Your task to perform on an android device: check google app version Image 0: 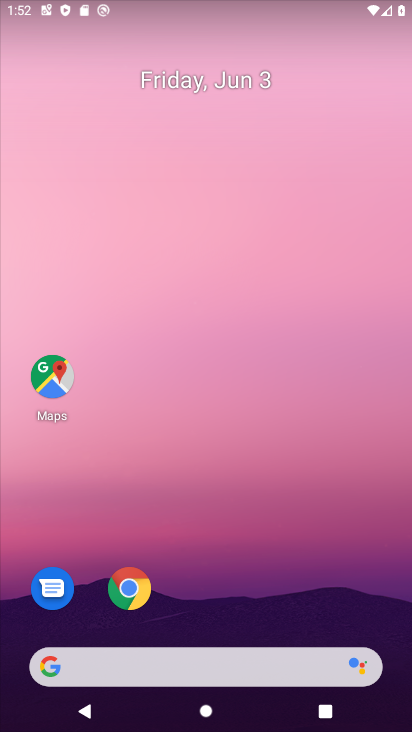
Step 0: drag from (264, 544) to (235, 19)
Your task to perform on an android device: check google app version Image 1: 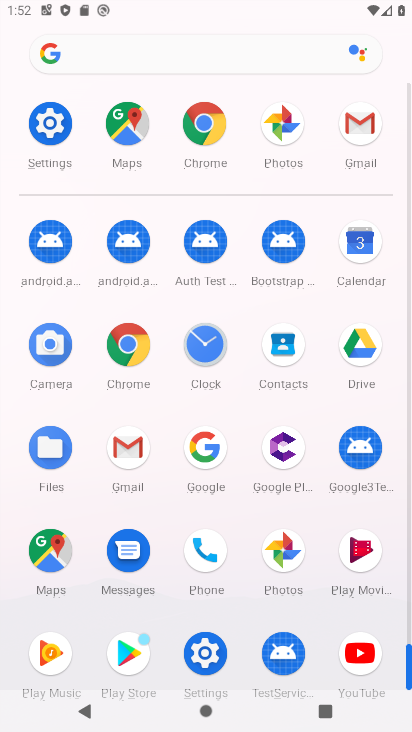
Step 1: drag from (245, 204) to (239, 66)
Your task to perform on an android device: check google app version Image 2: 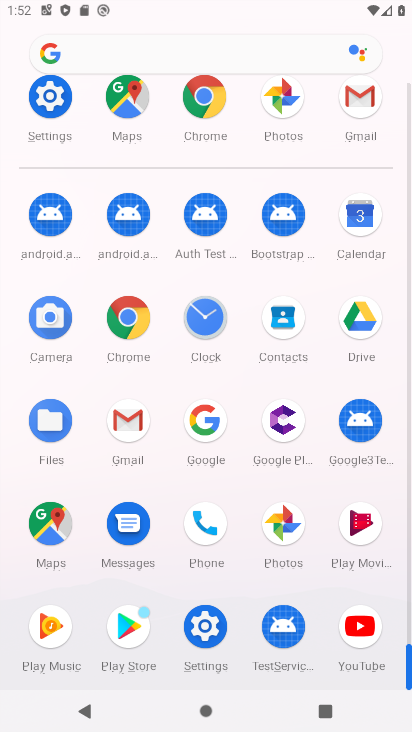
Step 2: click (211, 430)
Your task to perform on an android device: check google app version Image 3: 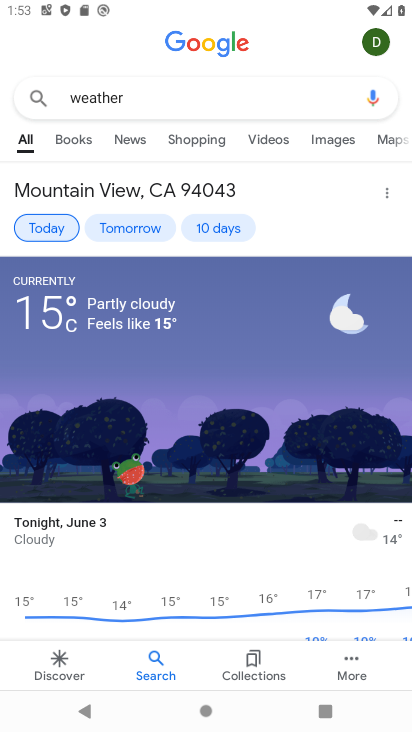
Step 3: click (347, 669)
Your task to perform on an android device: check google app version Image 4: 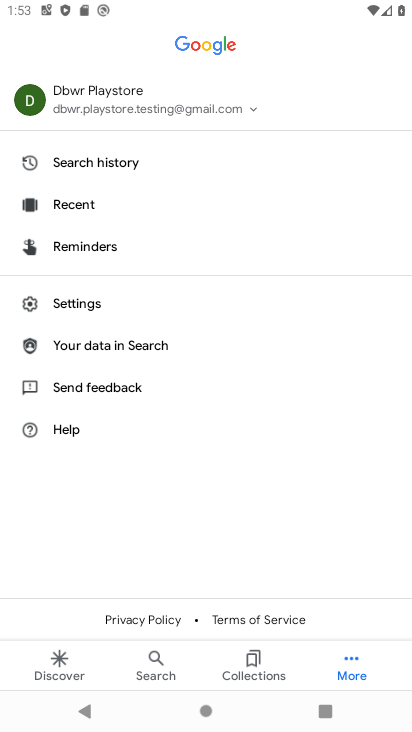
Step 4: click (99, 304)
Your task to perform on an android device: check google app version Image 5: 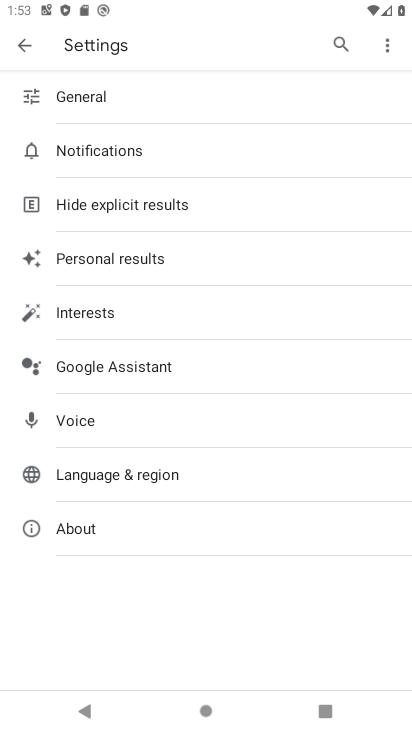
Step 5: click (117, 539)
Your task to perform on an android device: check google app version Image 6: 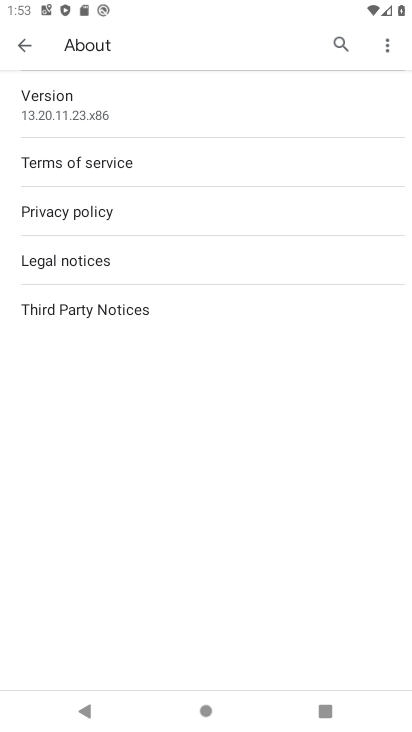
Step 6: task complete